Your task to perform on an android device: Go to battery settings Image 0: 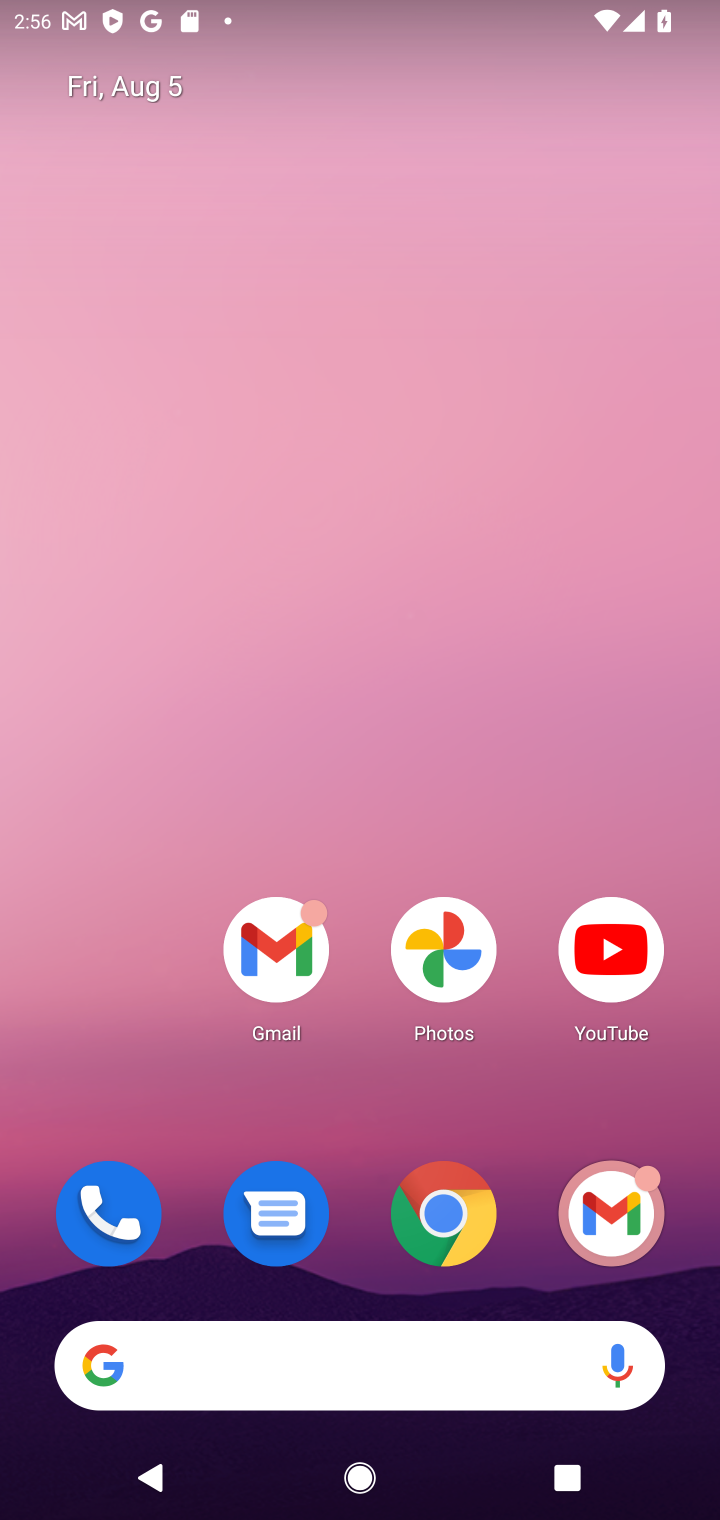
Step 0: drag from (362, 1300) to (237, 113)
Your task to perform on an android device: Go to battery settings Image 1: 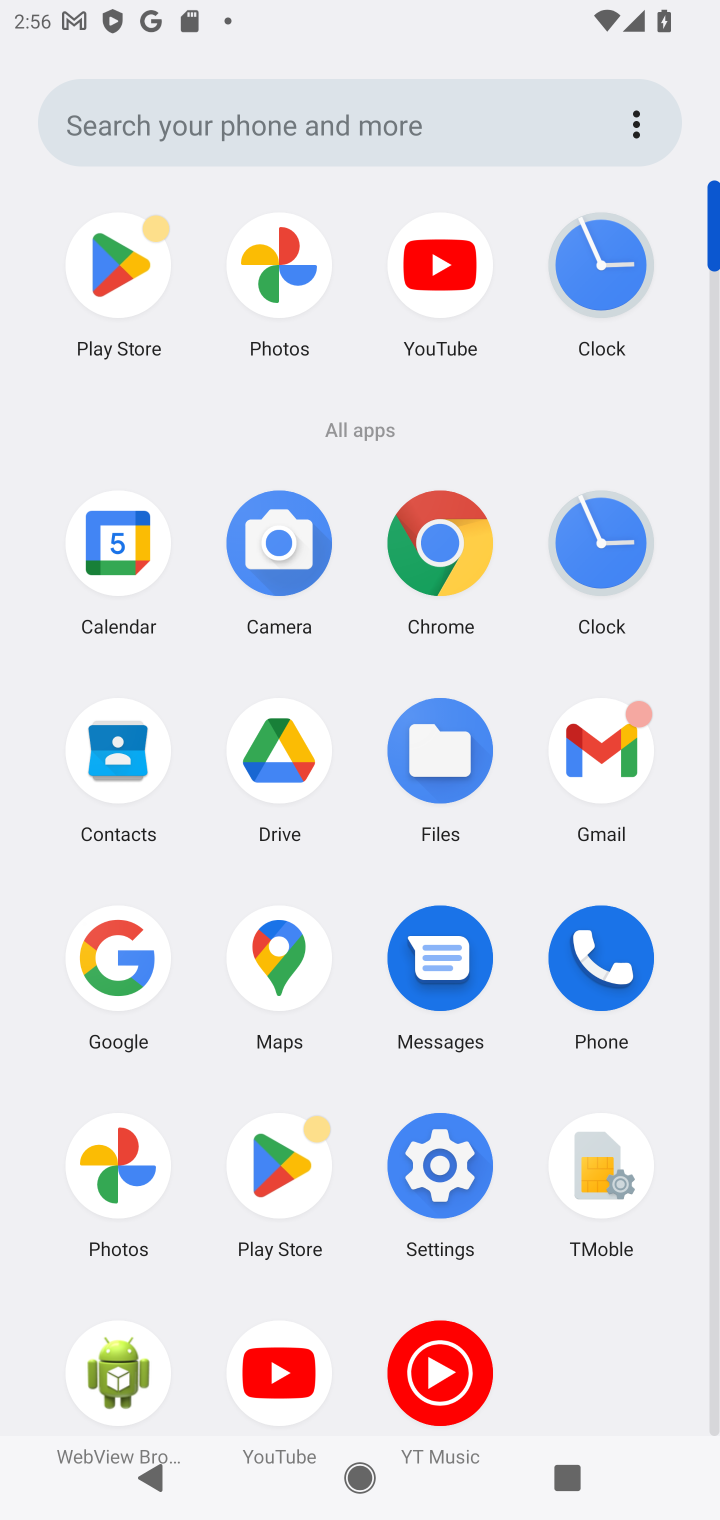
Step 1: click (432, 1133)
Your task to perform on an android device: Go to battery settings Image 2: 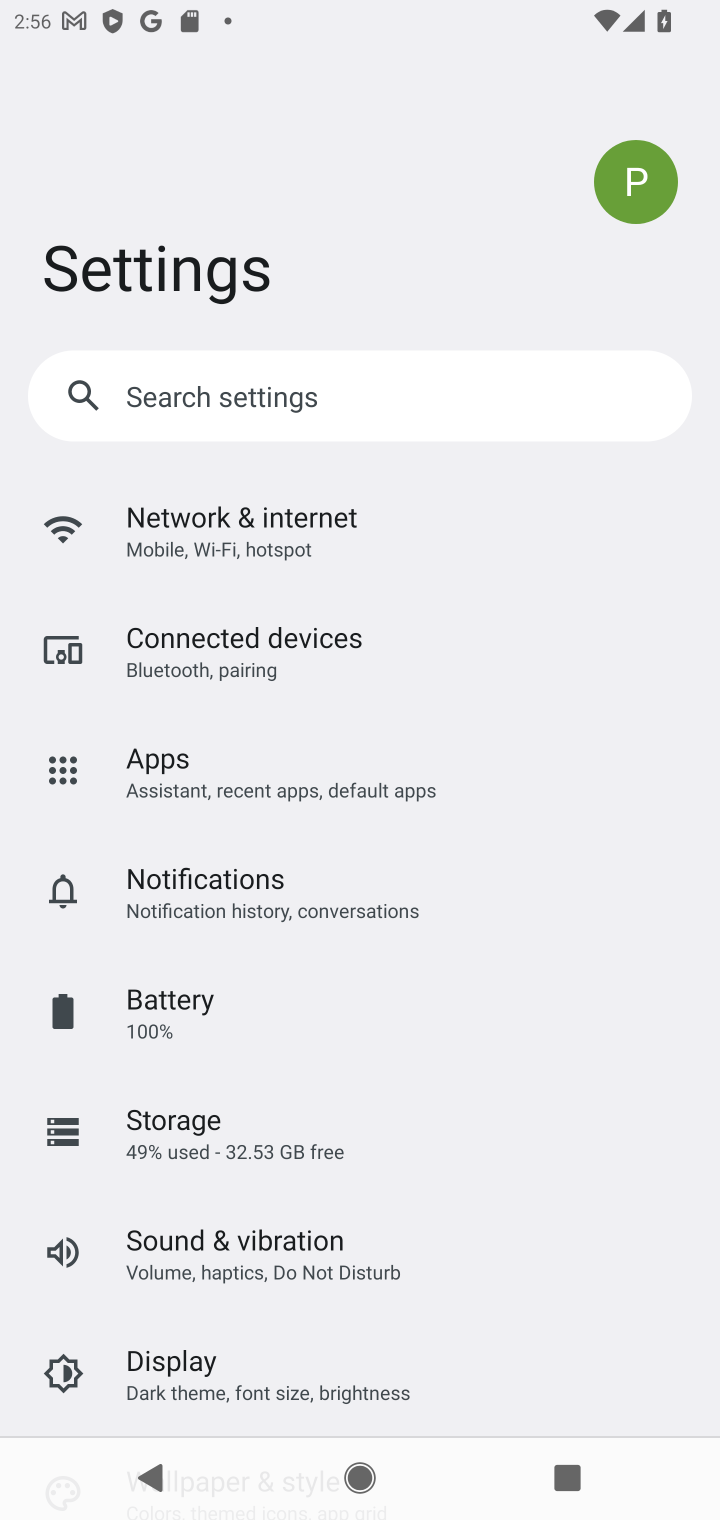
Step 2: click (258, 1038)
Your task to perform on an android device: Go to battery settings Image 3: 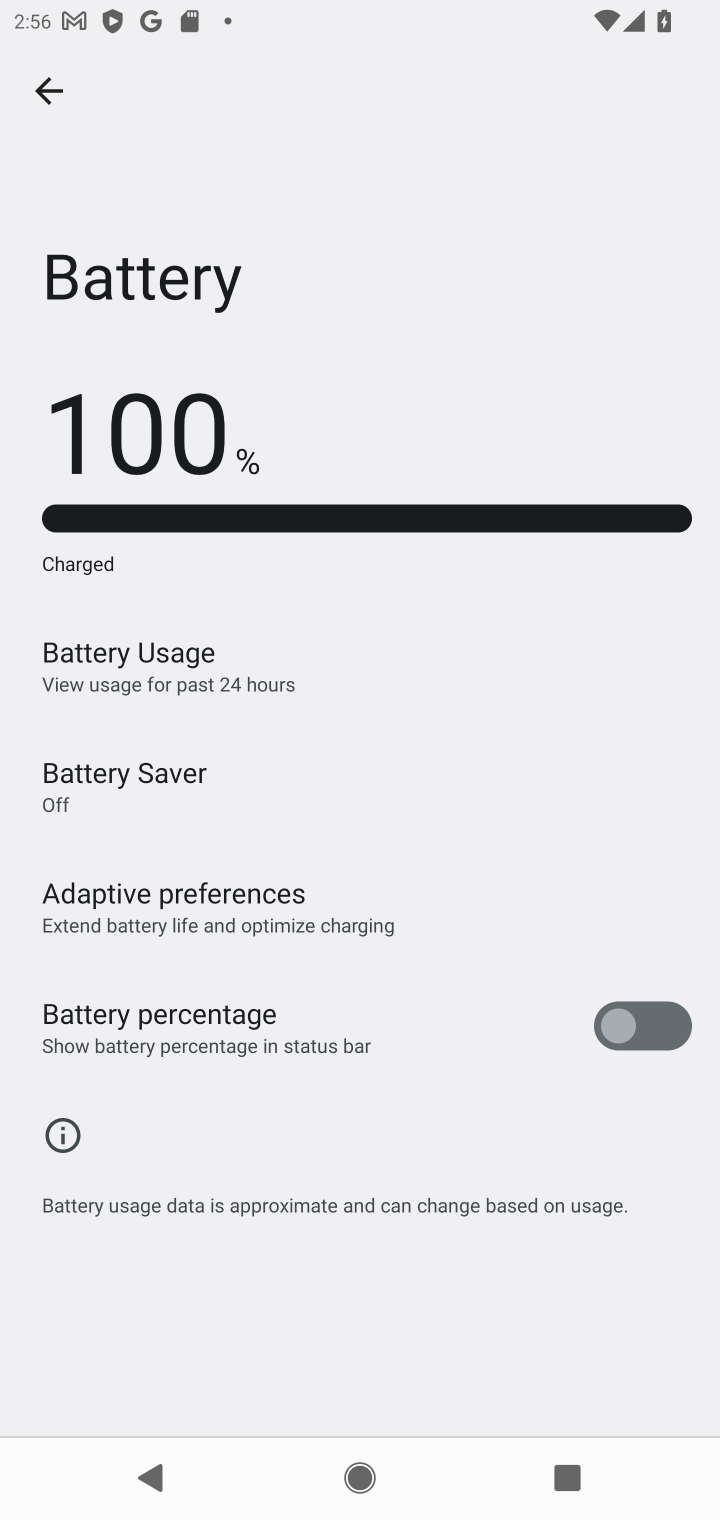
Step 3: task complete